Your task to perform on an android device: see sites visited before in the chrome app Image 0: 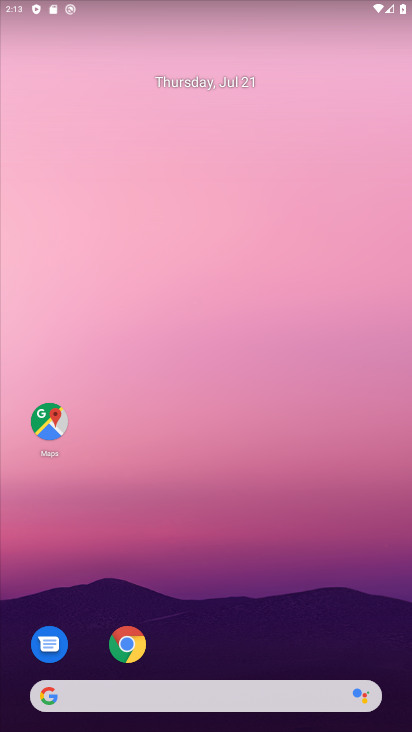
Step 0: click (126, 643)
Your task to perform on an android device: see sites visited before in the chrome app Image 1: 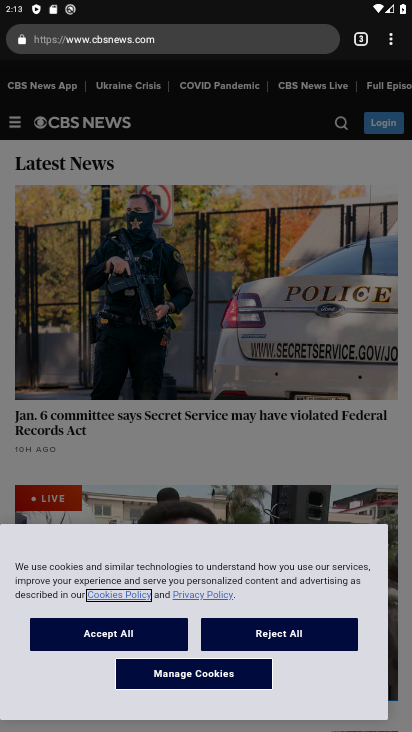
Step 1: click (398, 41)
Your task to perform on an android device: see sites visited before in the chrome app Image 2: 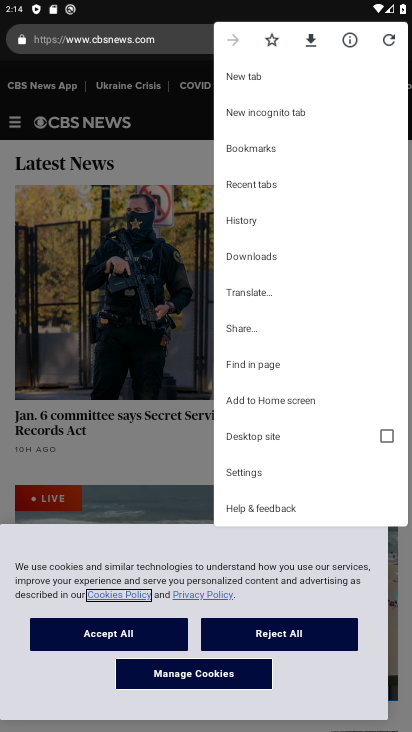
Step 2: click (303, 221)
Your task to perform on an android device: see sites visited before in the chrome app Image 3: 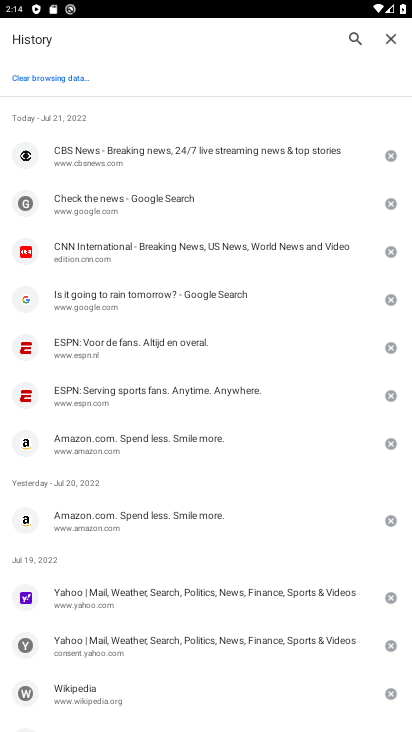
Step 3: task complete